Your task to perform on an android device: Open Wikipedia Image 0: 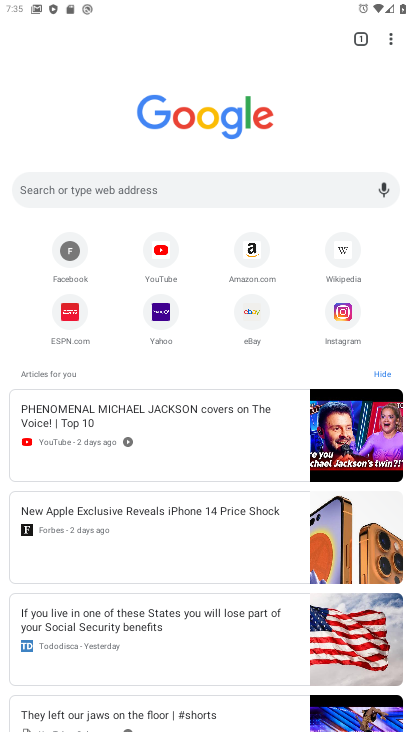
Step 0: press home button
Your task to perform on an android device: Open Wikipedia Image 1: 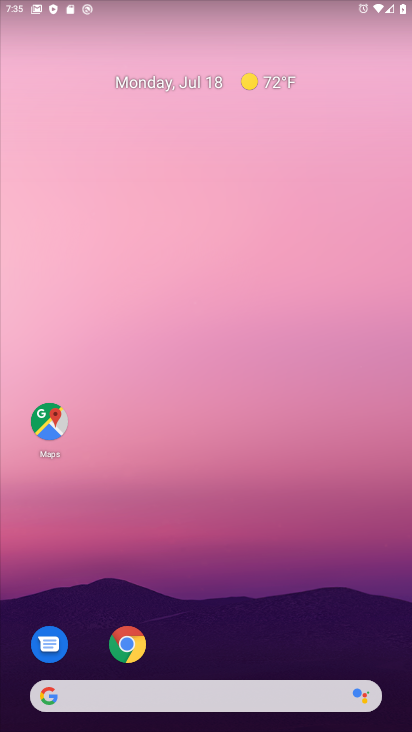
Step 1: drag from (364, 623) to (4, 169)
Your task to perform on an android device: Open Wikipedia Image 2: 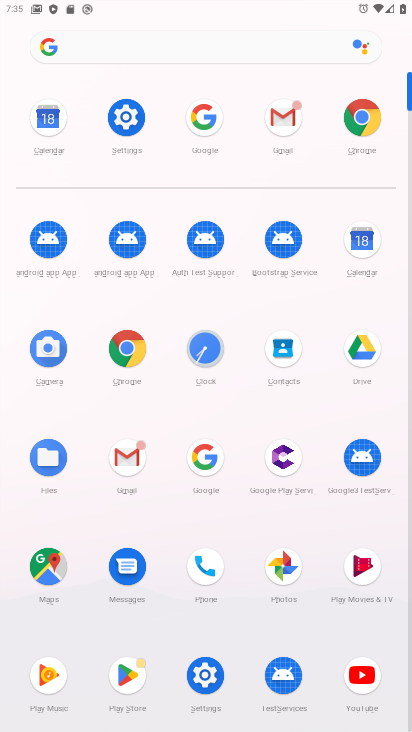
Step 2: click (188, 123)
Your task to perform on an android device: Open Wikipedia Image 3: 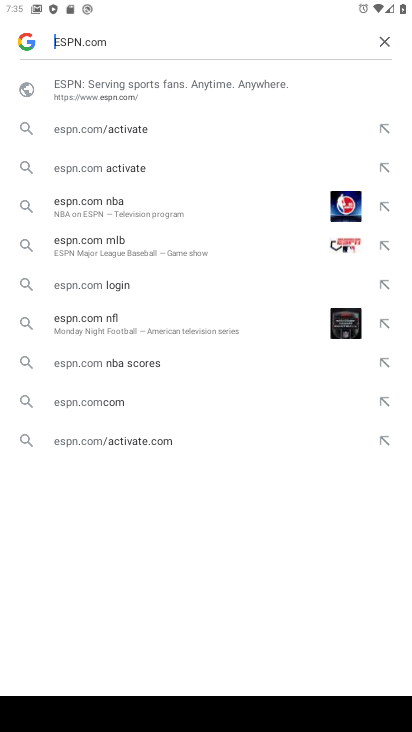
Step 3: click (387, 39)
Your task to perform on an android device: Open Wikipedia Image 4: 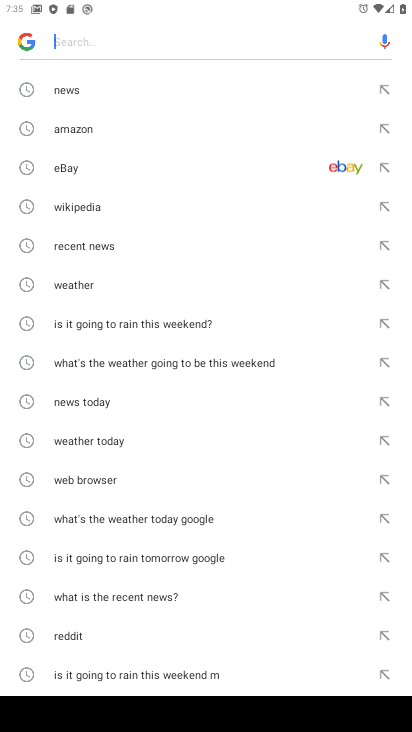
Step 4: click (100, 204)
Your task to perform on an android device: Open Wikipedia Image 5: 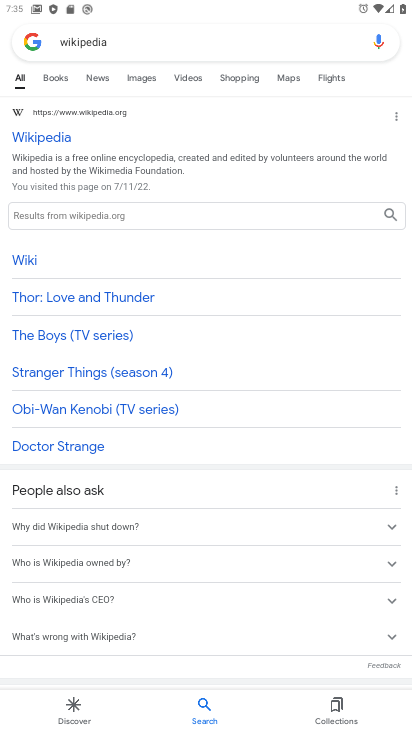
Step 5: task complete